Your task to perform on an android device: Open Google Maps Image 0: 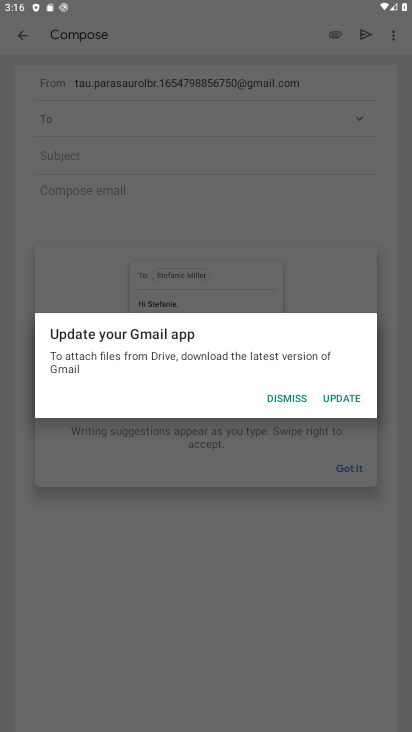
Step 0: press home button
Your task to perform on an android device: Open Google Maps Image 1: 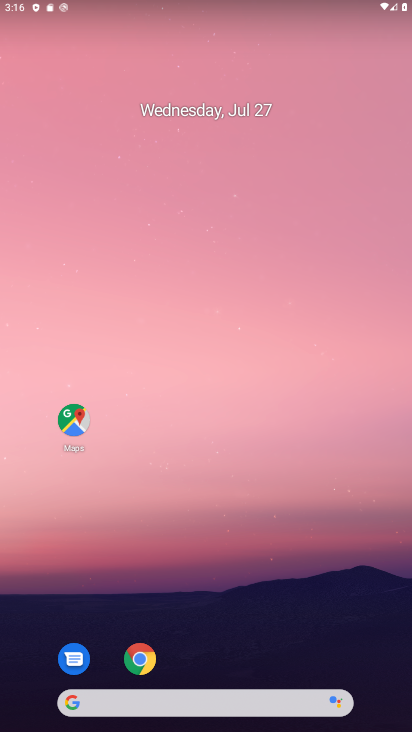
Step 1: click (71, 423)
Your task to perform on an android device: Open Google Maps Image 2: 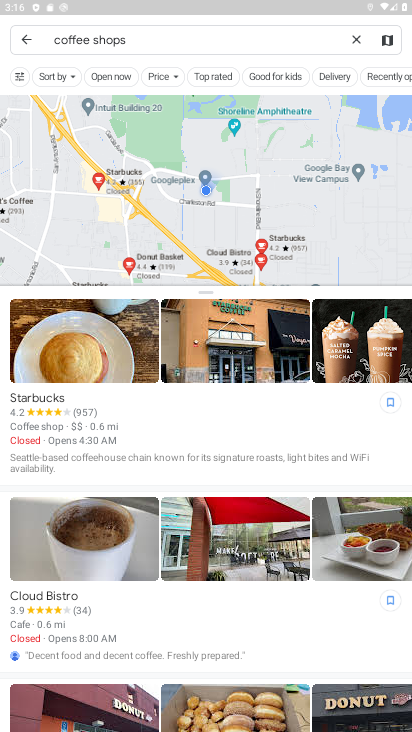
Step 2: task complete